Your task to perform on an android device: set an alarm Image 0: 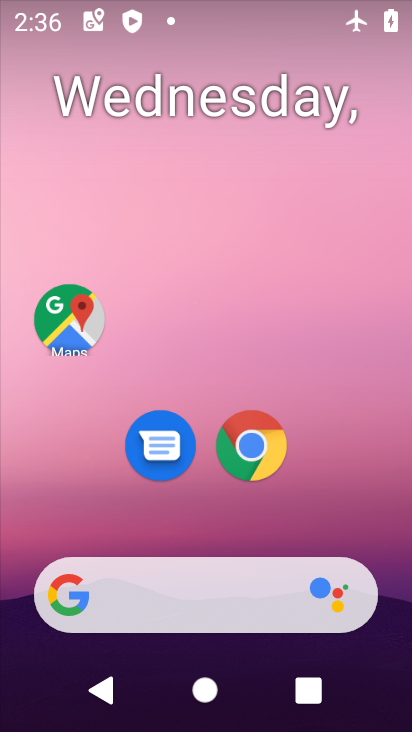
Step 0: drag from (211, 532) to (274, 188)
Your task to perform on an android device: set an alarm Image 1: 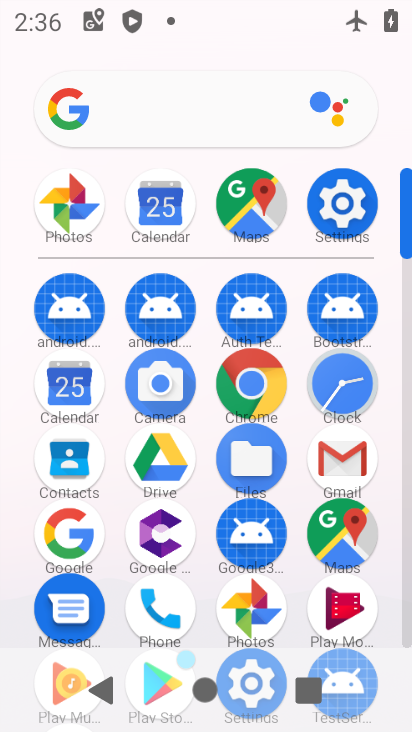
Step 1: click (327, 382)
Your task to perform on an android device: set an alarm Image 2: 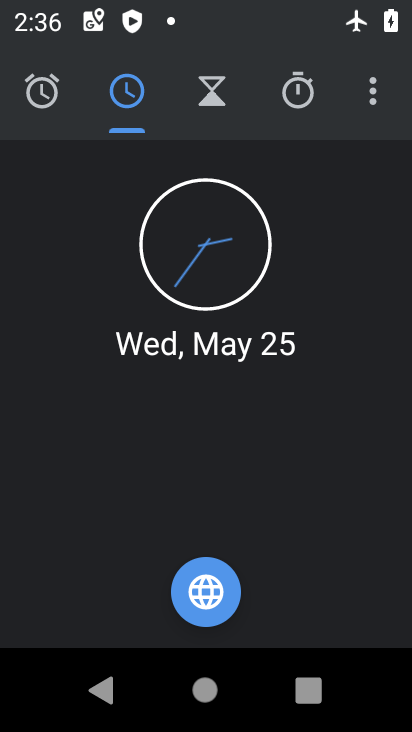
Step 2: click (60, 87)
Your task to perform on an android device: set an alarm Image 3: 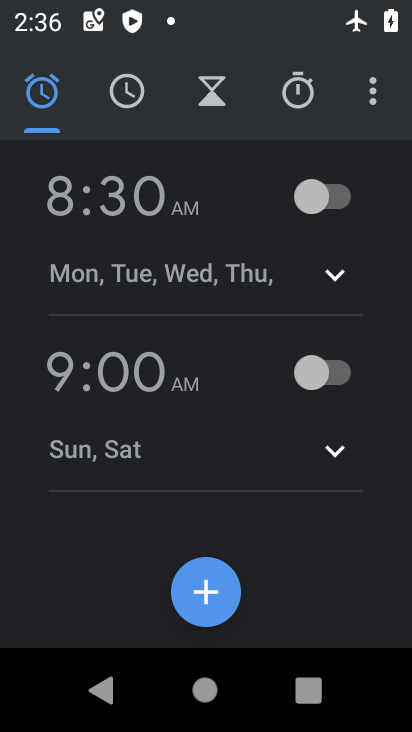
Step 3: click (350, 204)
Your task to perform on an android device: set an alarm Image 4: 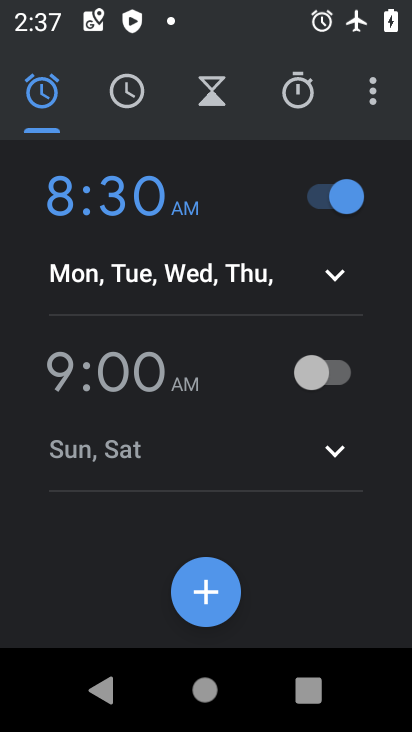
Step 4: task complete